Your task to perform on an android device: Turn on the flashlight Image 0: 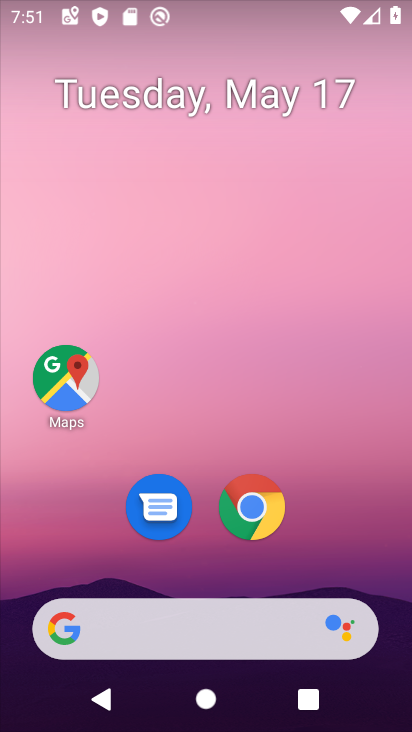
Step 0: drag from (374, 637) to (312, 180)
Your task to perform on an android device: Turn on the flashlight Image 1: 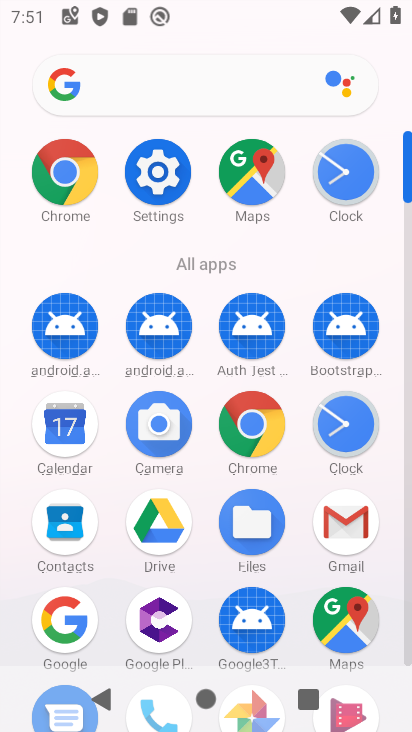
Step 1: task complete